Your task to perform on an android device: add a contact in the contacts app Image 0: 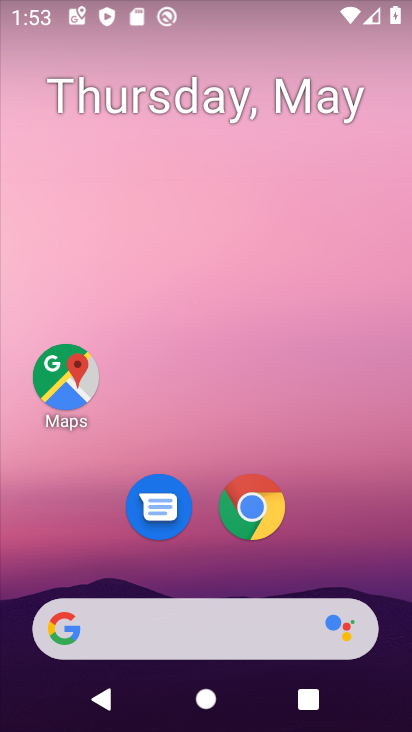
Step 0: drag from (302, 652) to (149, 3)
Your task to perform on an android device: add a contact in the contacts app Image 1: 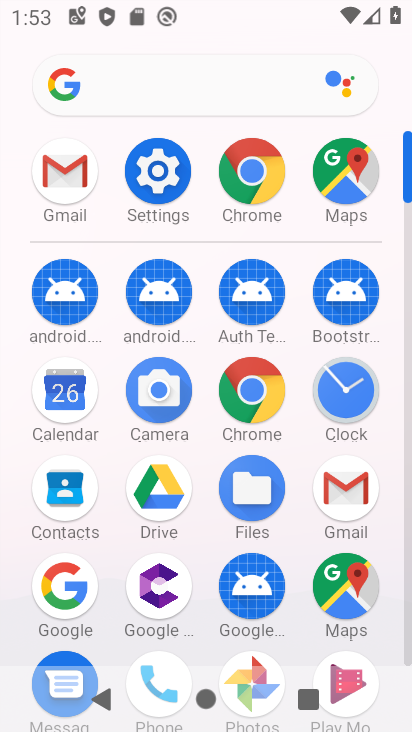
Step 1: click (47, 492)
Your task to perform on an android device: add a contact in the contacts app Image 2: 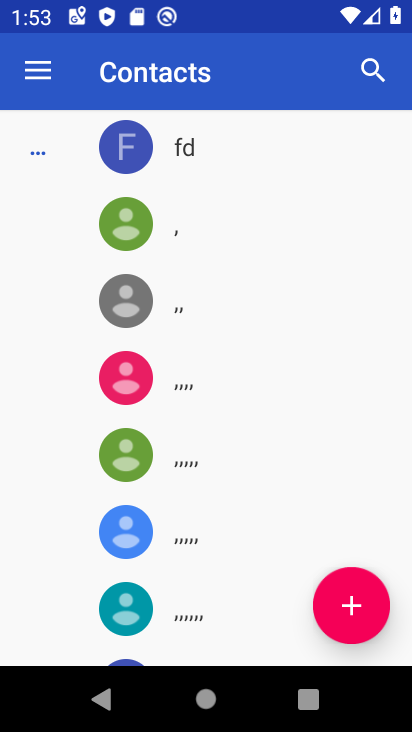
Step 2: click (318, 619)
Your task to perform on an android device: add a contact in the contacts app Image 3: 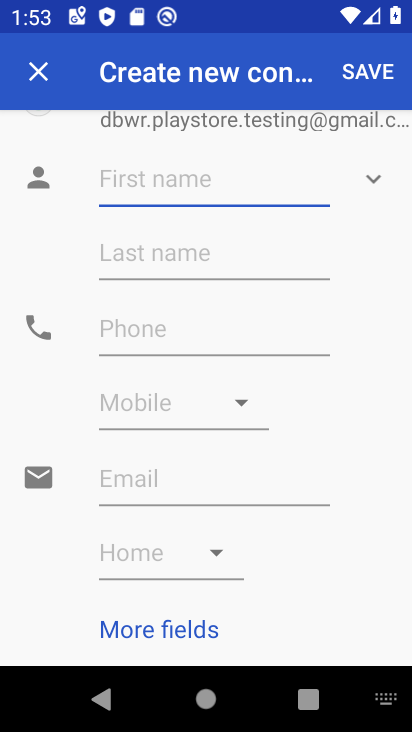
Step 3: type "jhhkjhkjhk"
Your task to perform on an android device: add a contact in the contacts app Image 4: 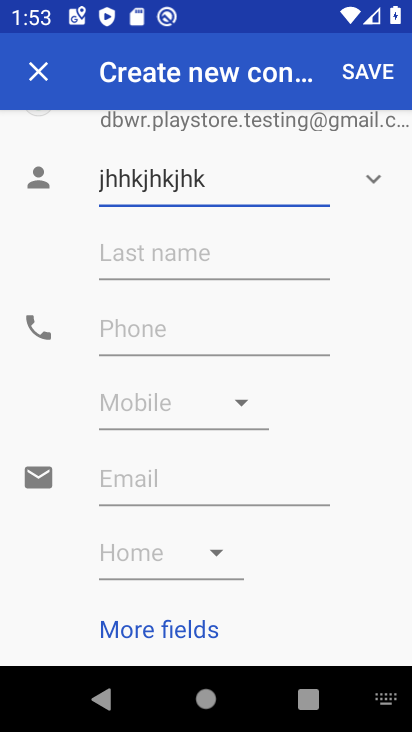
Step 4: click (215, 350)
Your task to perform on an android device: add a contact in the contacts app Image 5: 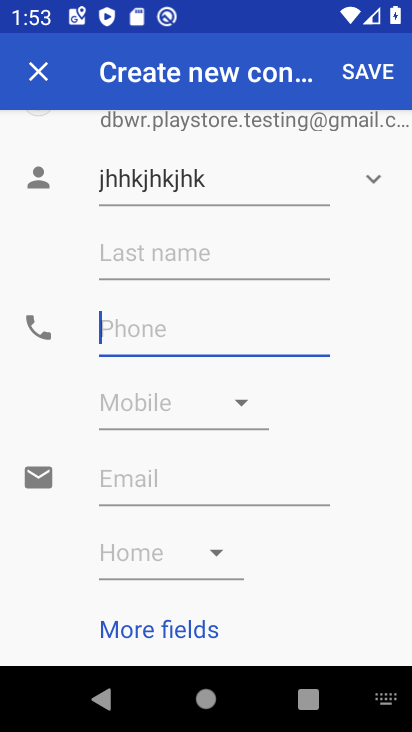
Step 5: type "989787898"
Your task to perform on an android device: add a contact in the contacts app Image 6: 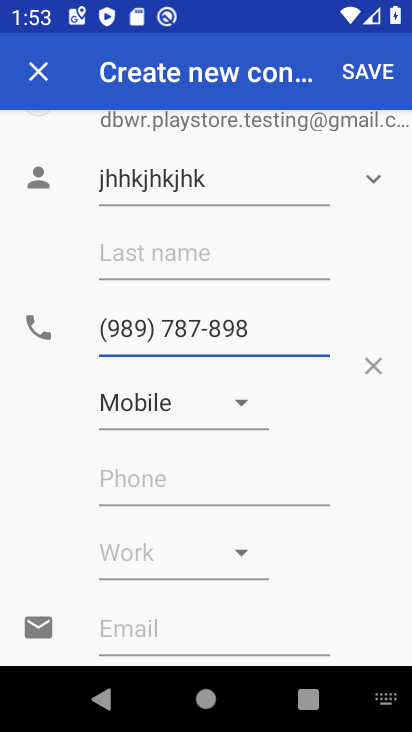
Step 6: click (393, 74)
Your task to perform on an android device: add a contact in the contacts app Image 7: 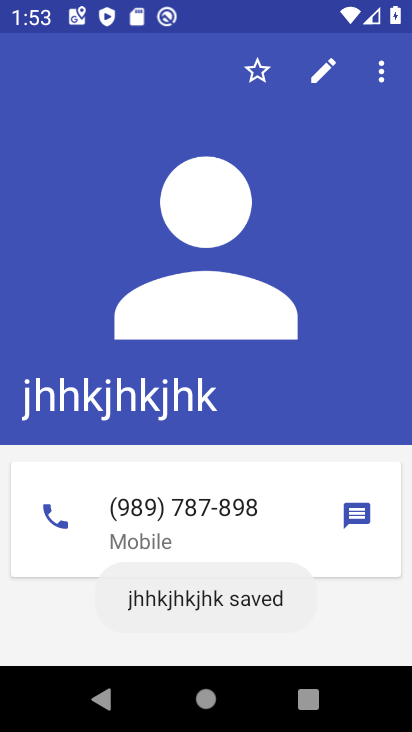
Step 7: task complete